Your task to perform on an android device: open app "Indeed Job Search" (install if not already installed) Image 0: 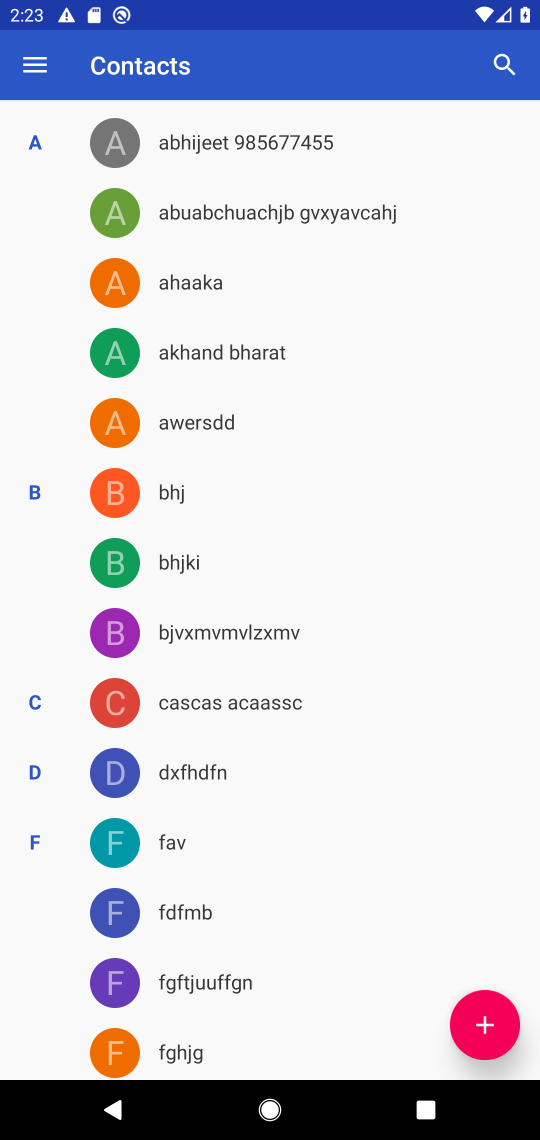
Step 0: press home button
Your task to perform on an android device: open app "Indeed Job Search" (install if not already installed) Image 1: 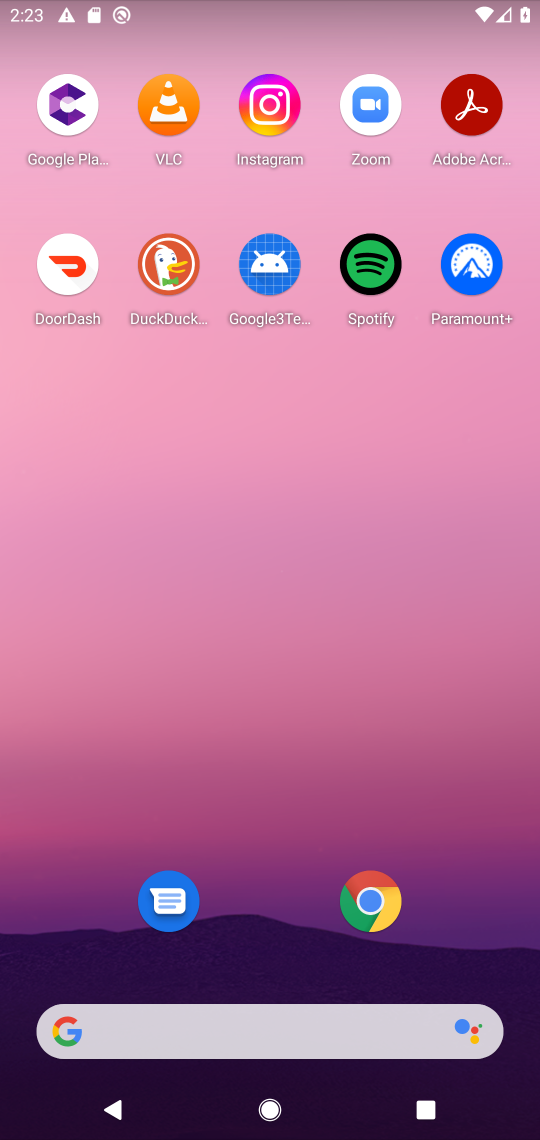
Step 1: drag from (496, 984) to (386, 257)
Your task to perform on an android device: open app "Indeed Job Search" (install if not already installed) Image 2: 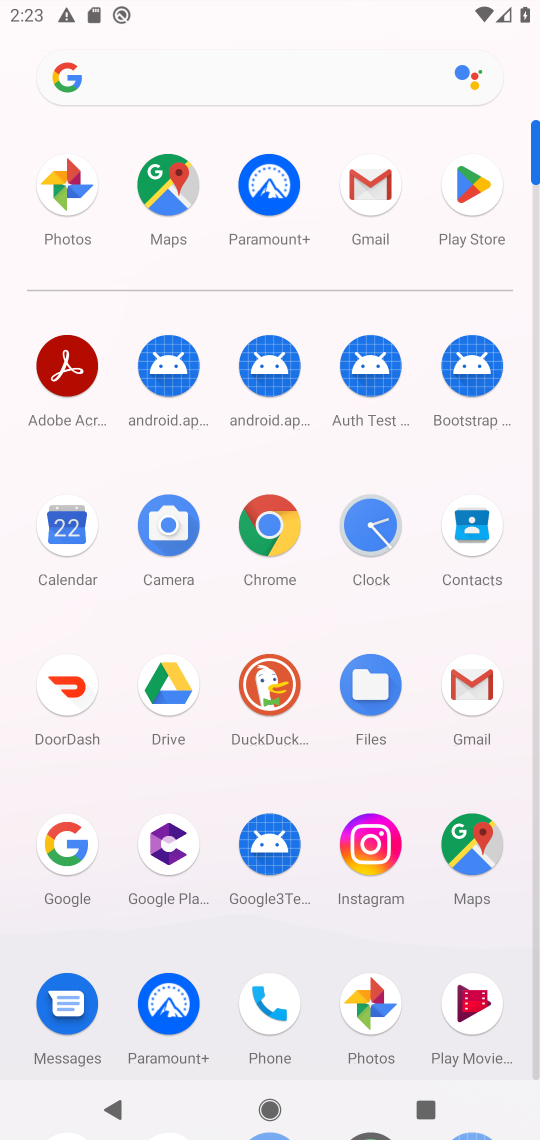
Step 2: drag from (223, 955) to (226, 131)
Your task to perform on an android device: open app "Indeed Job Search" (install if not already installed) Image 3: 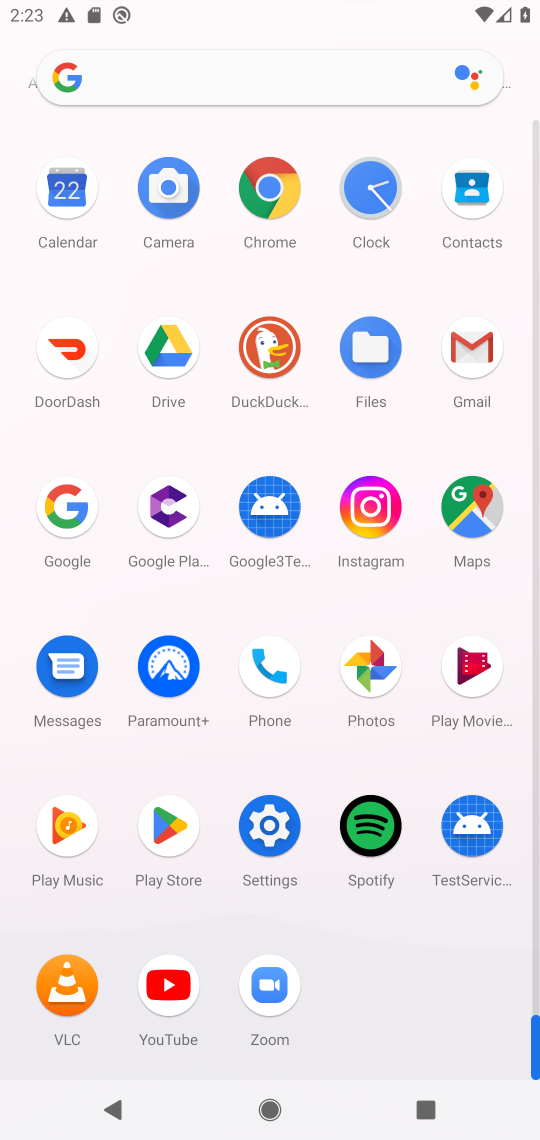
Step 3: click (169, 826)
Your task to perform on an android device: open app "Indeed Job Search" (install if not already installed) Image 4: 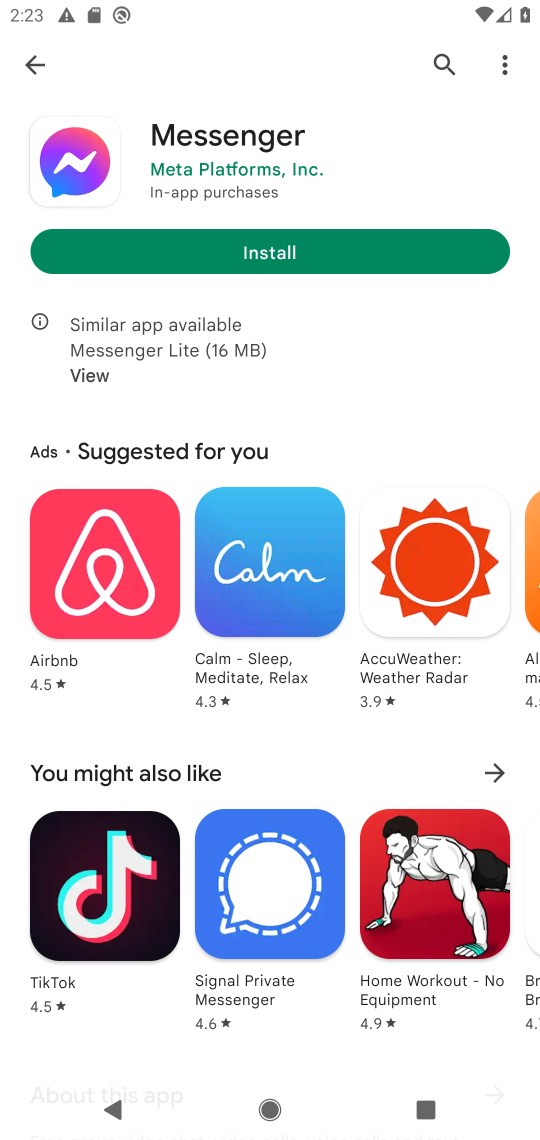
Step 4: click (437, 67)
Your task to perform on an android device: open app "Indeed Job Search" (install if not already installed) Image 5: 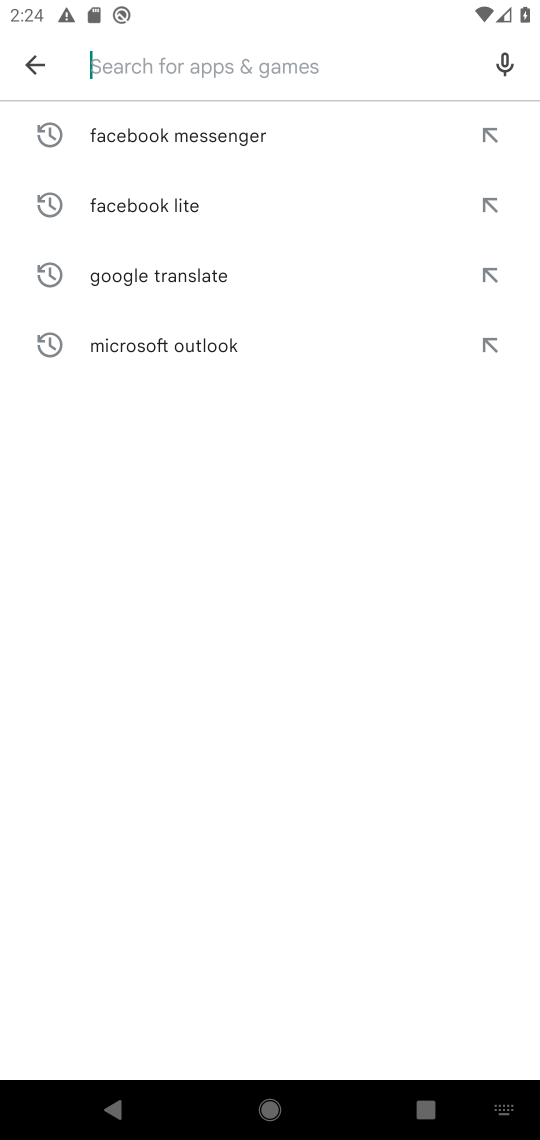
Step 5: type "Indeed Job Search"
Your task to perform on an android device: open app "Indeed Job Search" (install if not already installed) Image 6: 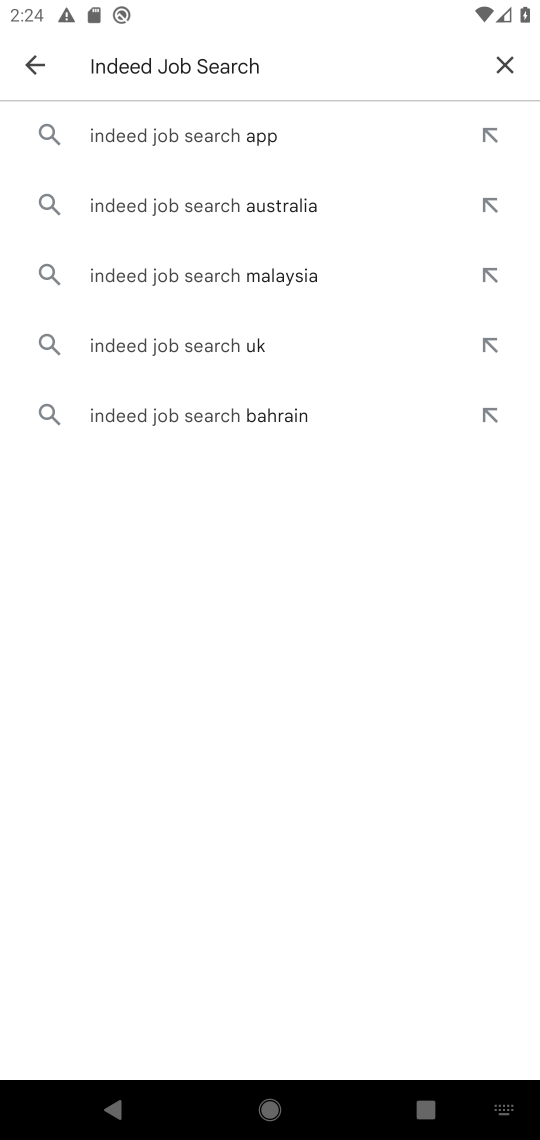
Step 6: click (174, 140)
Your task to perform on an android device: open app "Indeed Job Search" (install if not already installed) Image 7: 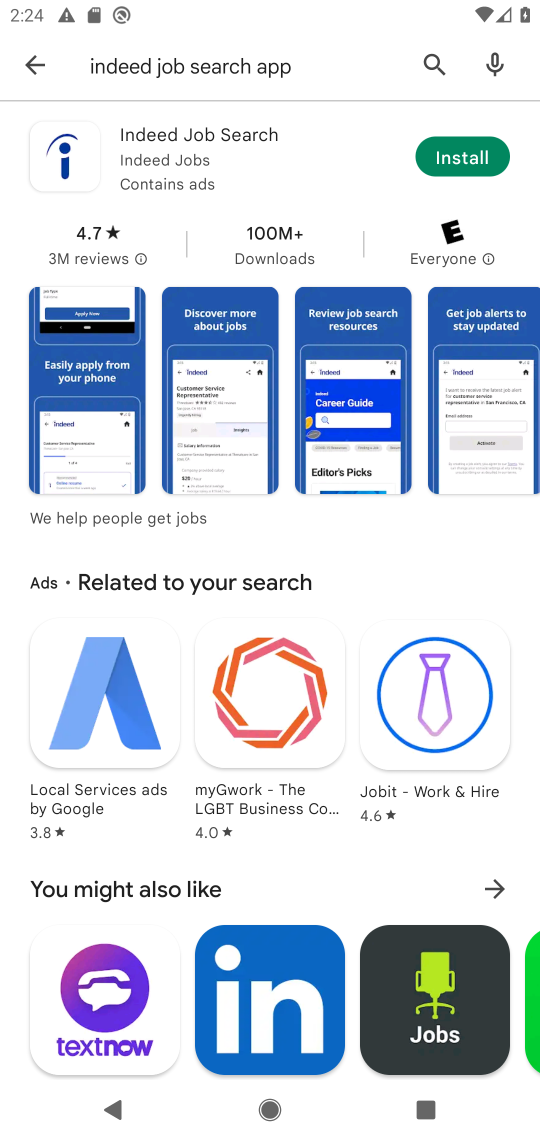
Step 7: click (166, 127)
Your task to perform on an android device: open app "Indeed Job Search" (install if not already installed) Image 8: 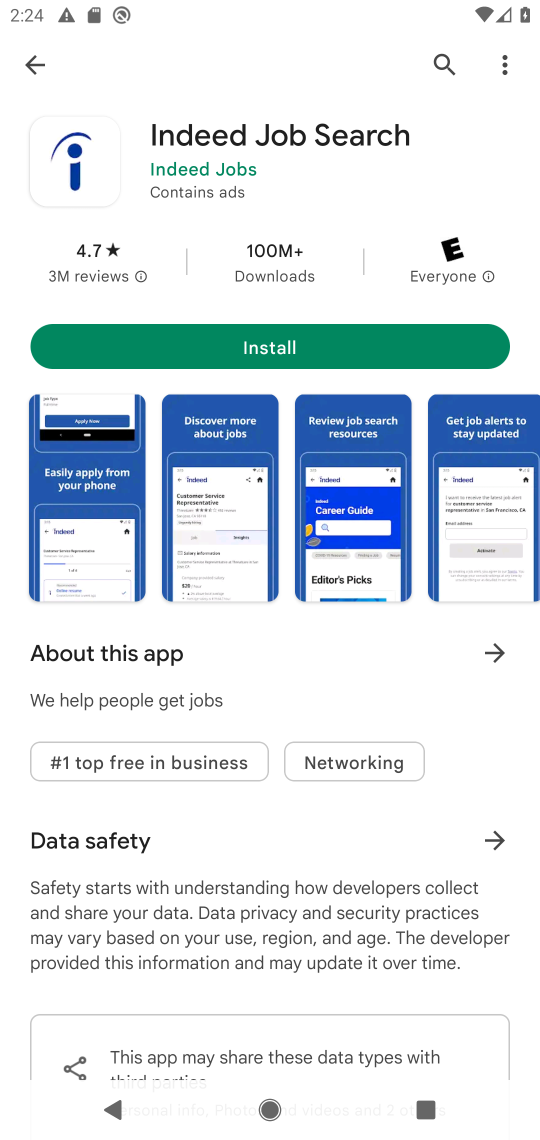
Step 8: click (269, 348)
Your task to perform on an android device: open app "Indeed Job Search" (install if not already installed) Image 9: 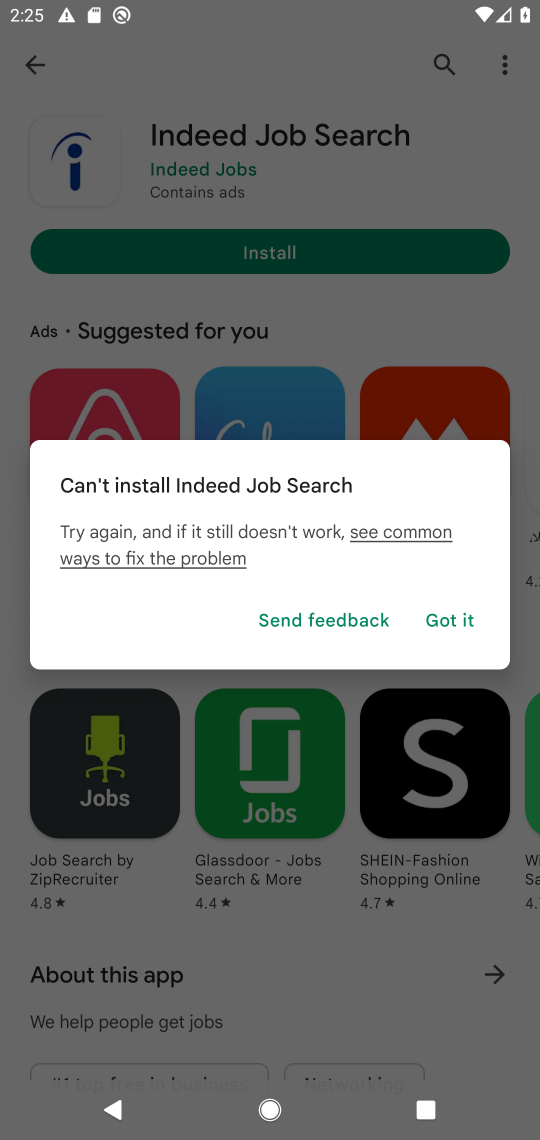
Step 9: click (447, 619)
Your task to perform on an android device: open app "Indeed Job Search" (install if not already installed) Image 10: 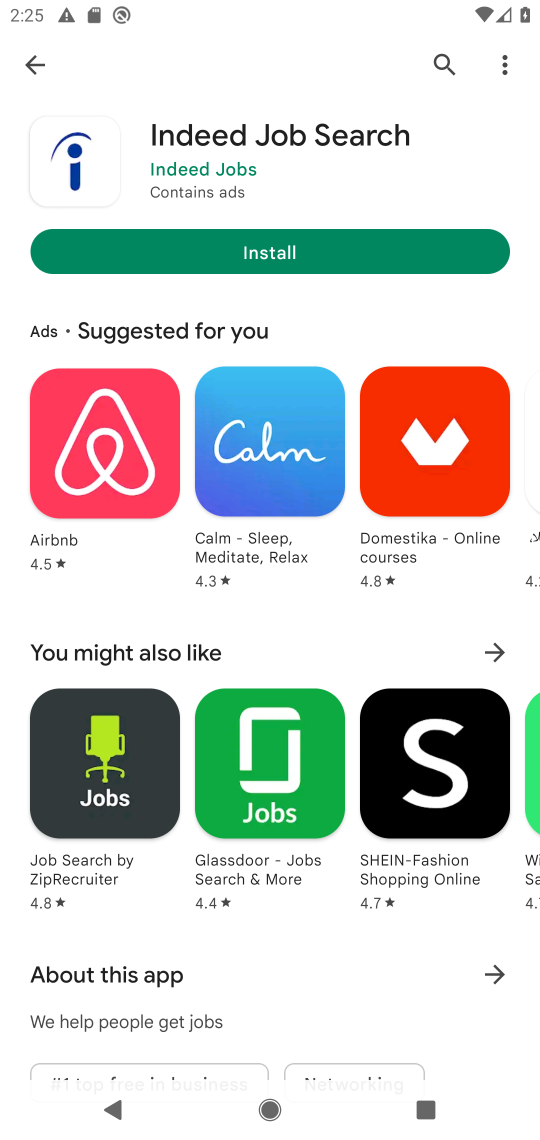
Step 10: task complete